Your task to perform on an android device: Open my contact list Image 0: 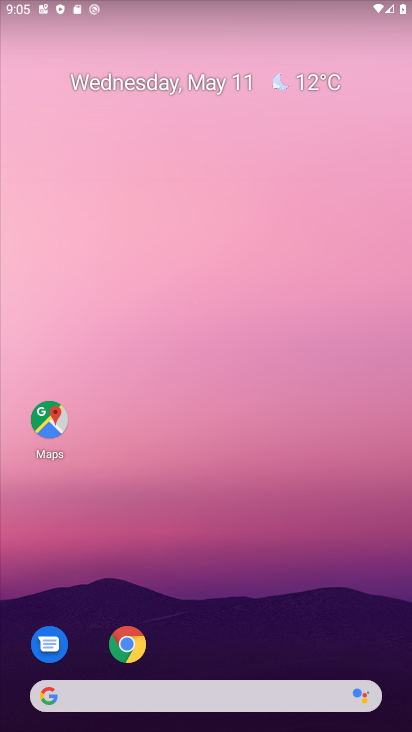
Step 0: click (147, 234)
Your task to perform on an android device: Open my contact list Image 1: 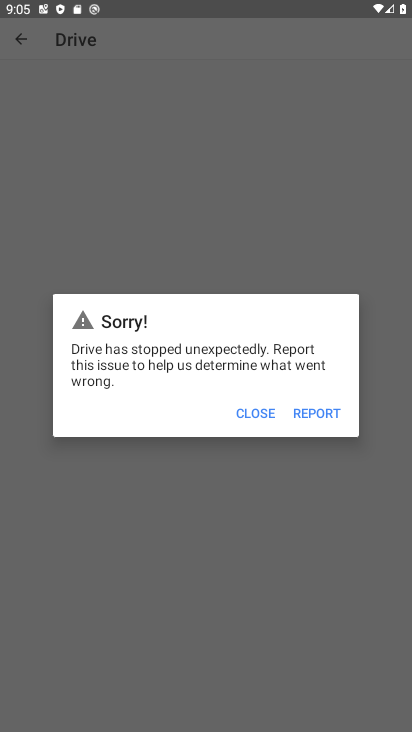
Step 1: press home button
Your task to perform on an android device: Open my contact list Image 2: 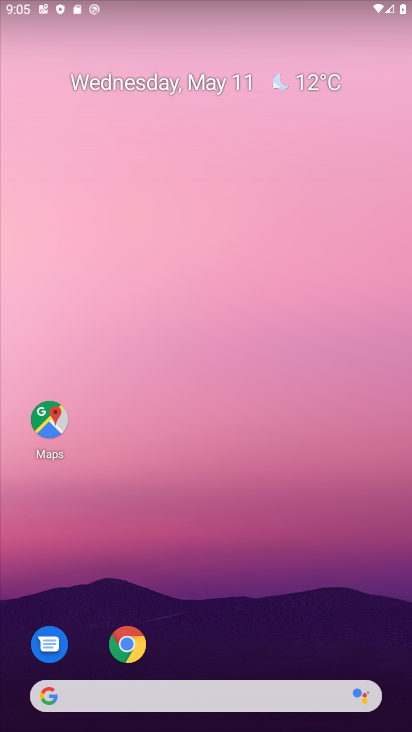
Step 2: drag from (198, 614) to (97, 119)
Your task to perform on an android device: Open my contact list Image 3: 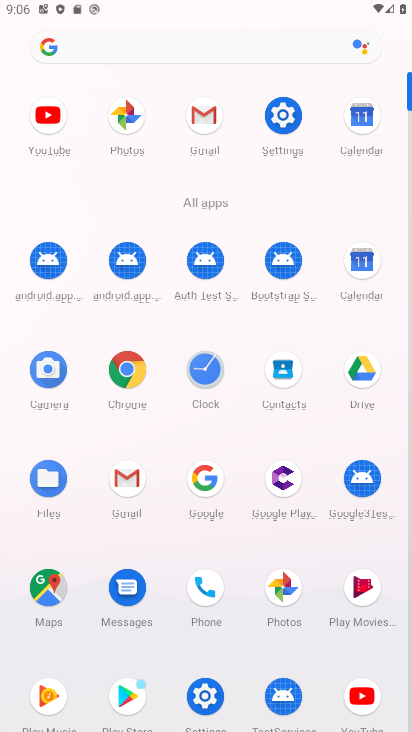
Step 3: click (282, 374)
Your task to perform on an android device: Open my contact list Image 4: 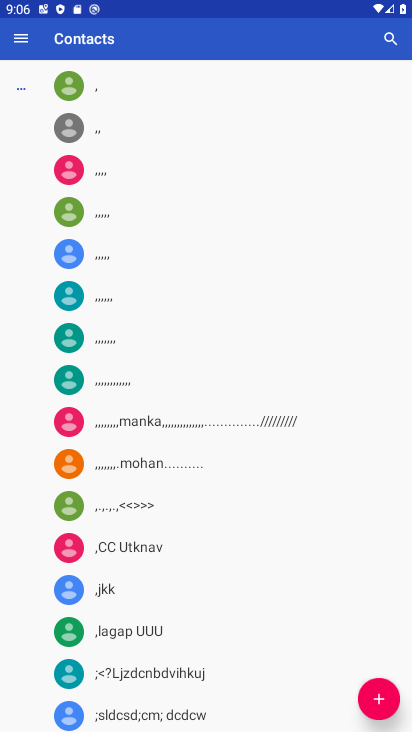
Step 4: task complete